Your task to perform on an android device: check the backup settings in the google photos Image 0: 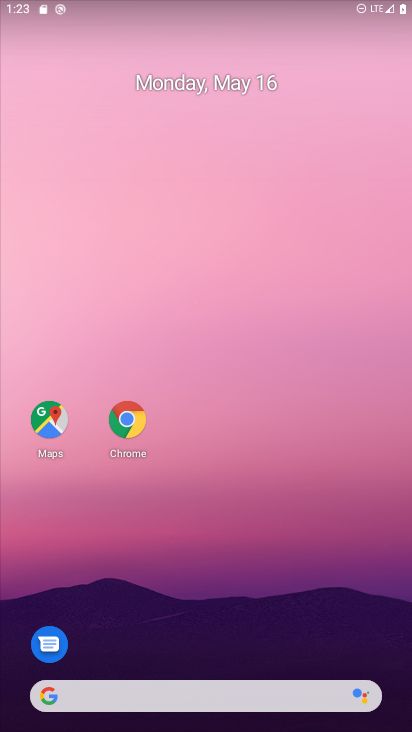
Step 0: drag from (240, 644) to (254, 465)
Your task to perform on an android device: check the backup settings in the google photos Image 1: 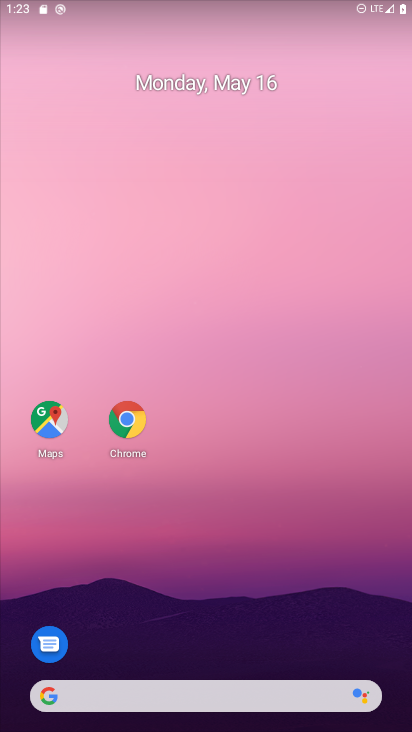
Step 1: drag from (176, 603) to (201, 258)
Your task to perform on an android device: check the backup settings in the google photos Image 2: 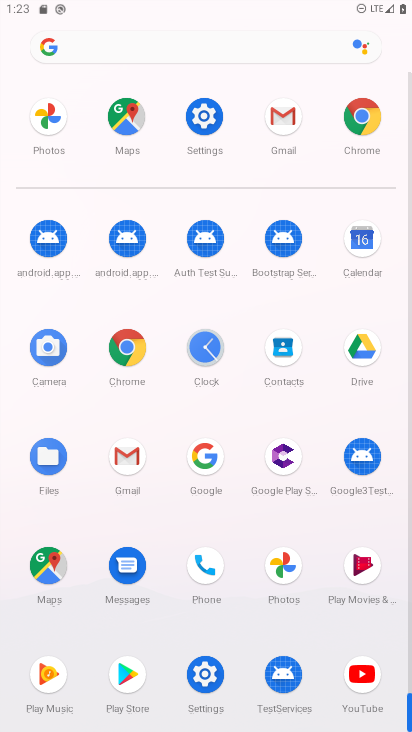
Step 2: click (281, 568)
Your task to perform on an android device: check the backup settings in the google photos Image 3: 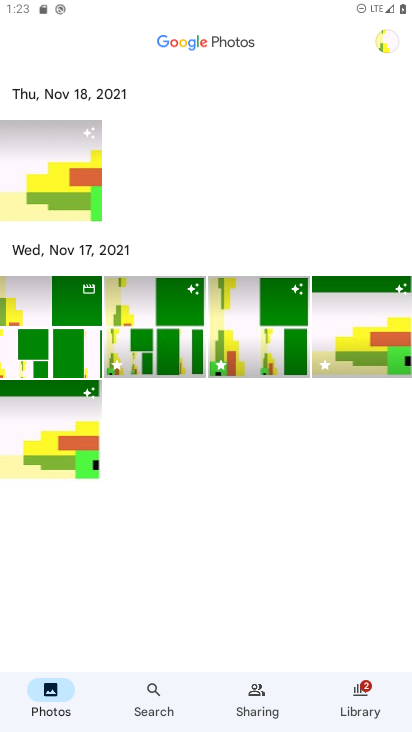
Step 3: click (381, 39)
Your task to perform on an android device: check the backup settings in the google photos Image 4: 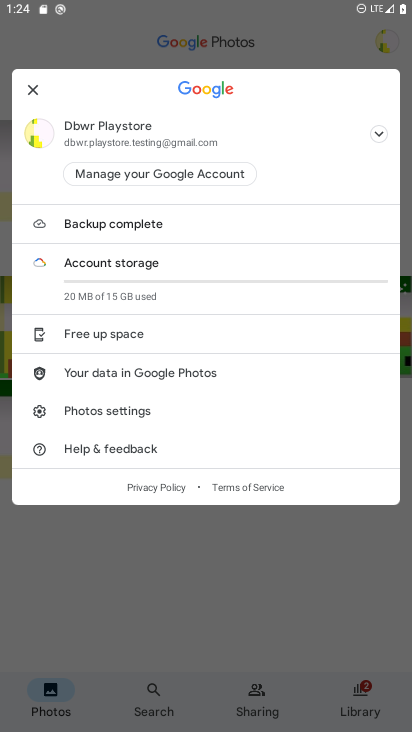
Step 4: click (88, 408)
Your task to perform on an android device: check the backup settings in the google photos Image 5: 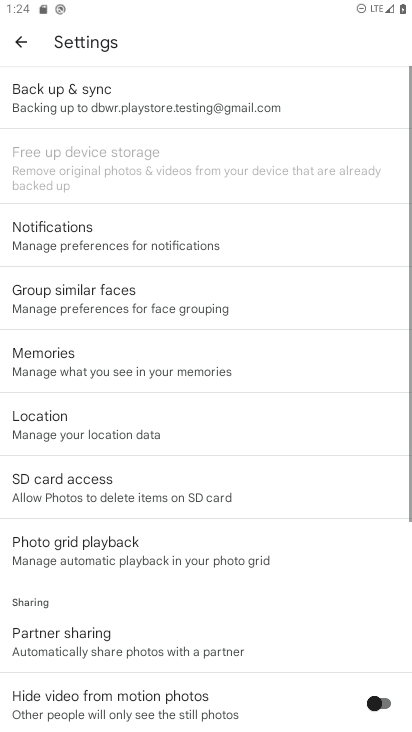
Step 5: click (109, 103)
Your task to perform on an android device: check the backup settings in the google photos Image 6: 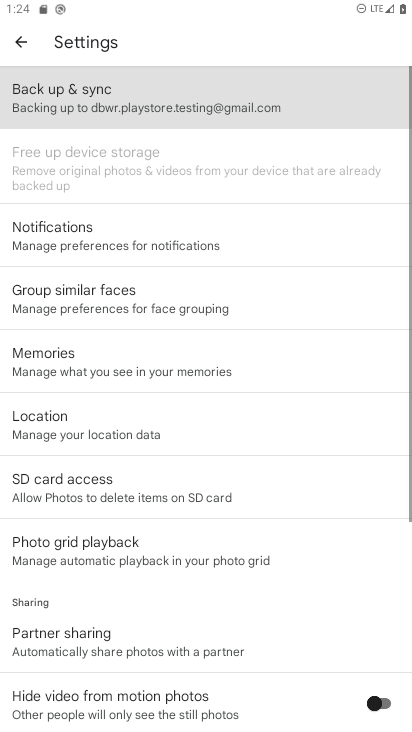
Step 6: task complete